Your task to perform on an android device: What's the weather going to be tomorrow? Image 0: 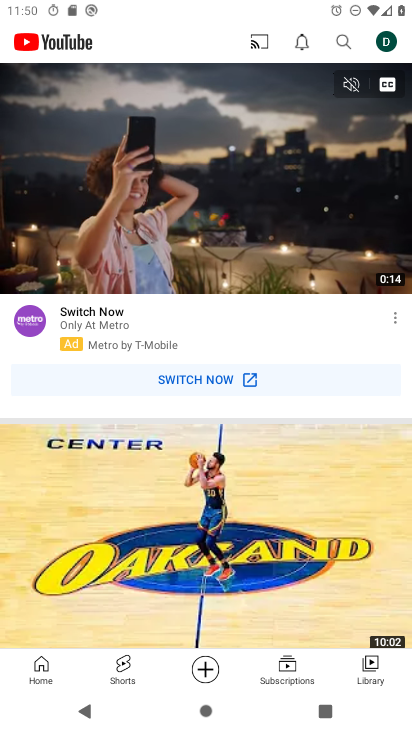
Step 0: press home button
Your task to perform on an android device: What's the weather going to be tomorrow? Image 1: 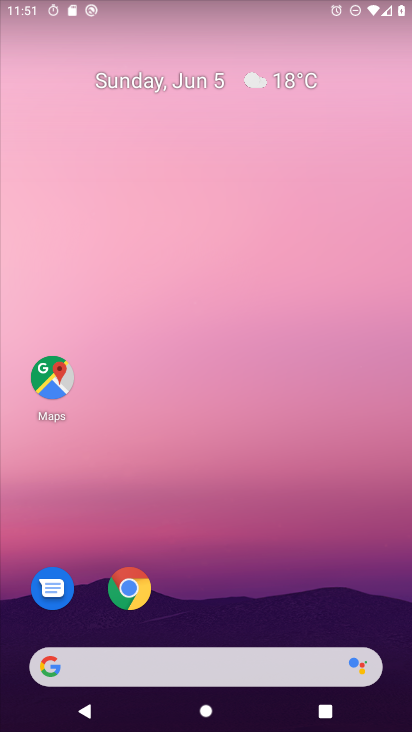
Step 1: click (284, 79)
Your task to perform on an android device: What's the weather going to be tomorrow? Image 2: 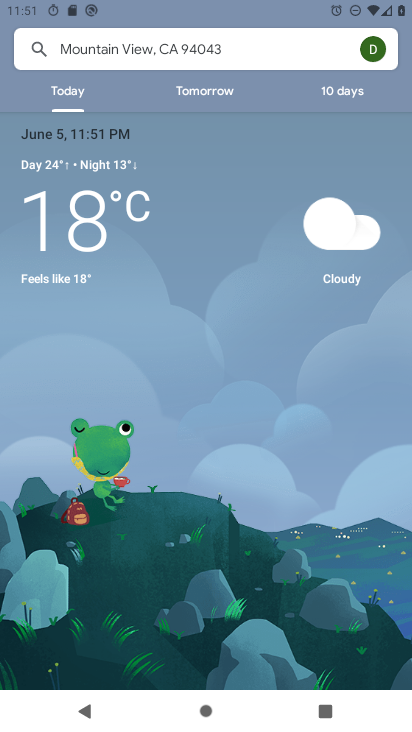
Step 2: click (203, 100)
Your task to perform on an android device: What's the weather going to be tomorrow? Image 3: 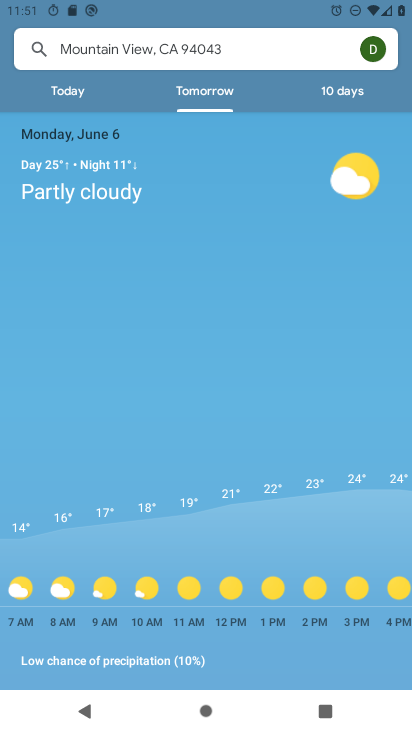
Step 3: task complete